Your task to perform on an android device: Search for seafood restaurants on Google Maps Image 0: 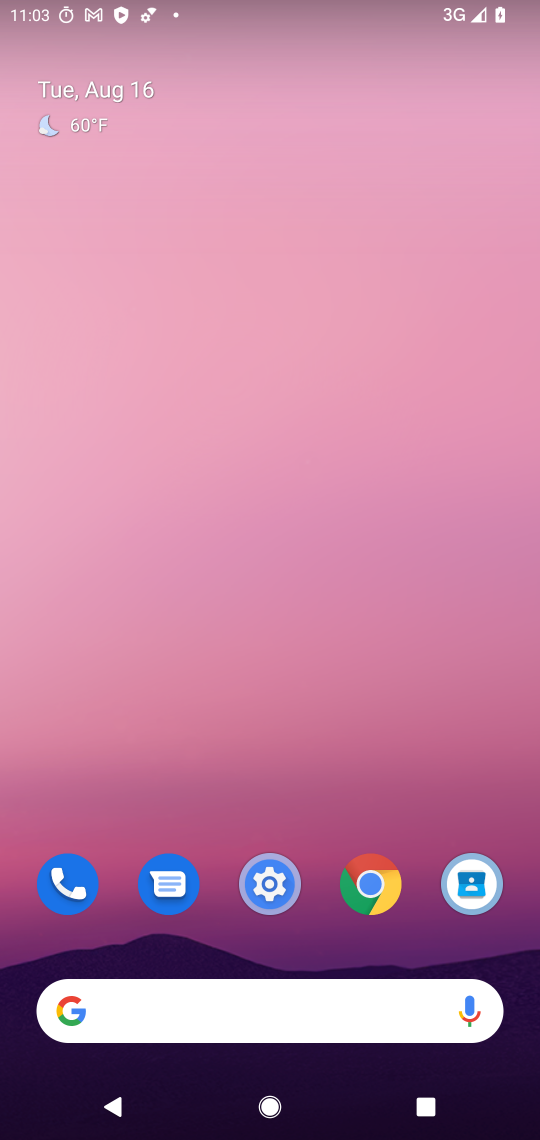
Step 0: drag from (219, 607) to (219, 89)
Your task to perform on an android device: Search for seafood restaurants on Google Maps Image 1: 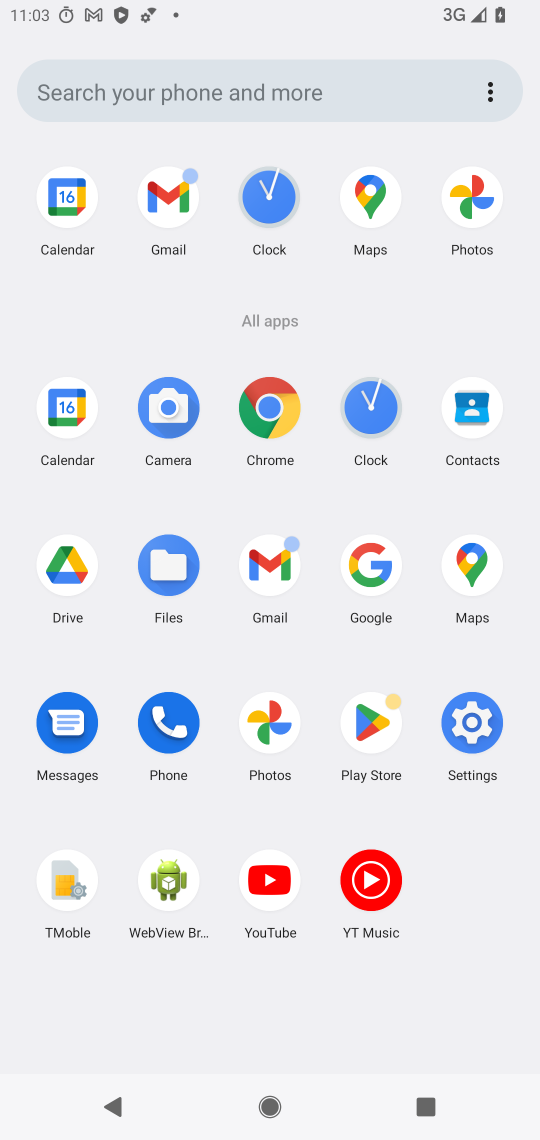
Step 1: click (476, 564)
Your task to perform on an android device: Search for seafood restaurants on Google Maps Image 2: 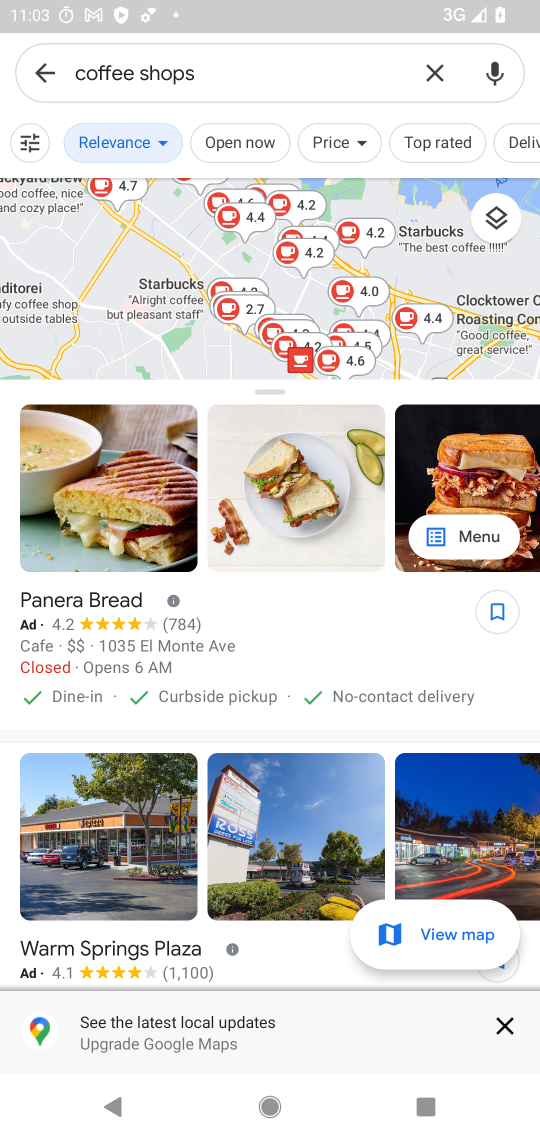
Step 2: click (45, 79)
Your task to perform on an android device: Search for seafood restaurants on Google Maps Image 3: 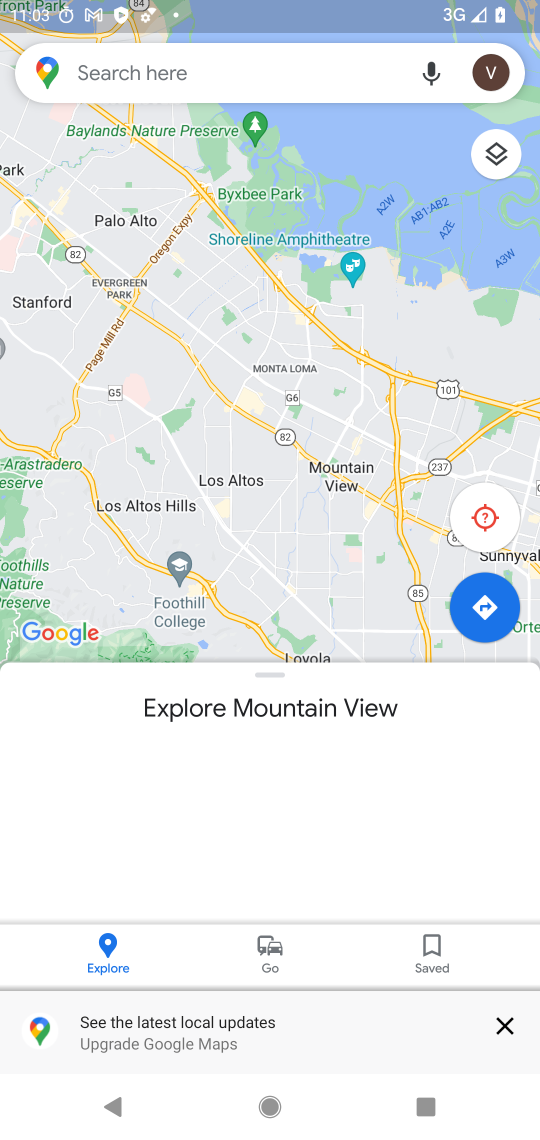
Step 3: click (153, 79)
Your task to perform on an android device: Search for seafood restaurants on Google Maps Image 4: 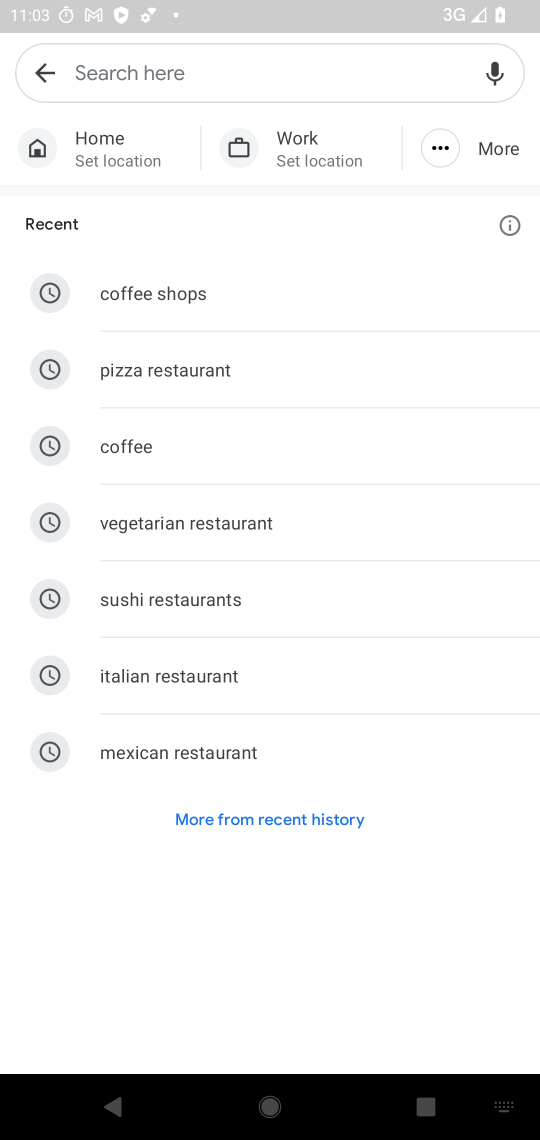
Step 4: type "seafood restaurants"
Your task to perform on an android device: Search for seafood restaurants on Google Maps Image 5: 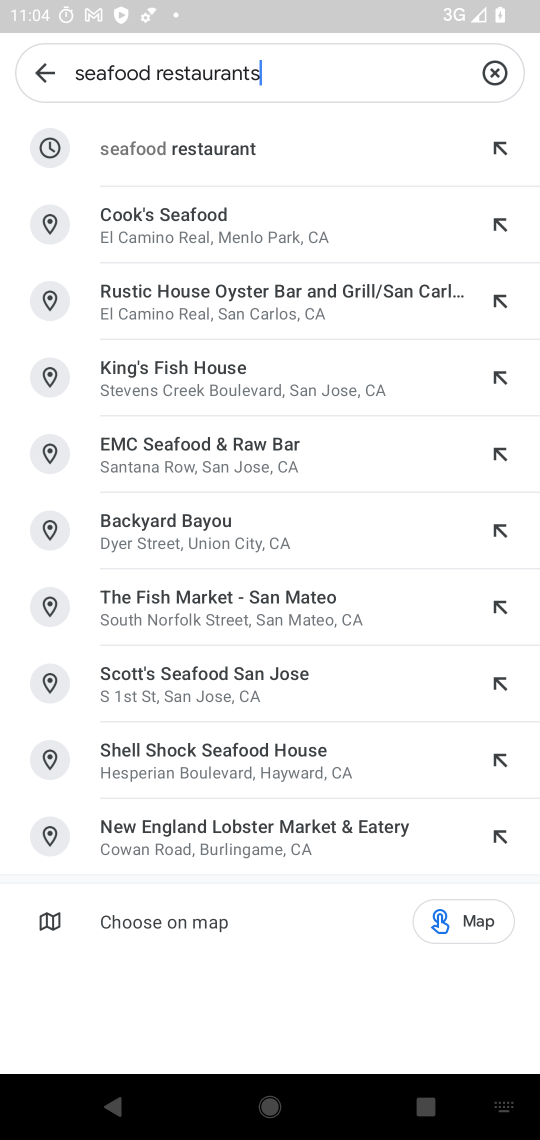
Step 5: click (161, 155)
Your task to perform on an android device: Search for seafood restaurants on Google Maps Image 6: 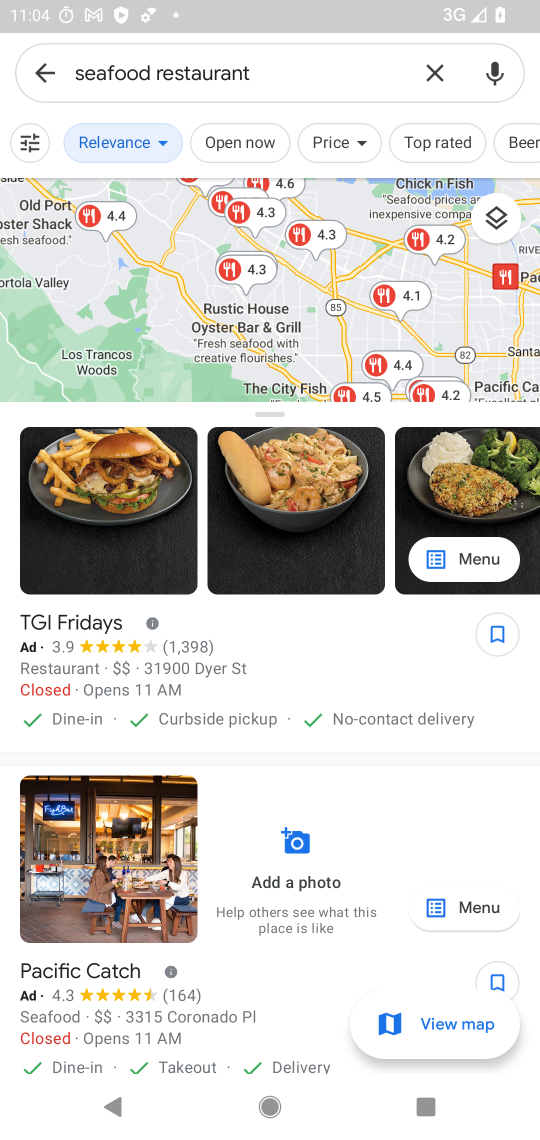
Step 6: task complete